Your task to perform on an android device: open chrome and create a bookmark for the current page Image 0: 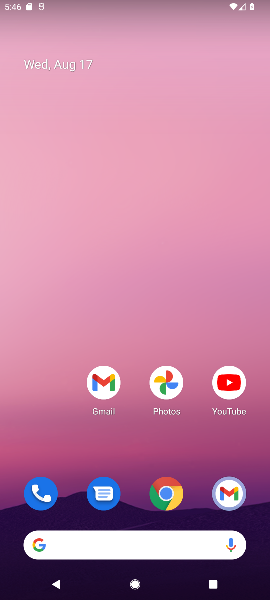
Step 0: press home button
Your task to perform on an android device: open chrome and create a bookmark for the current page Image 1: 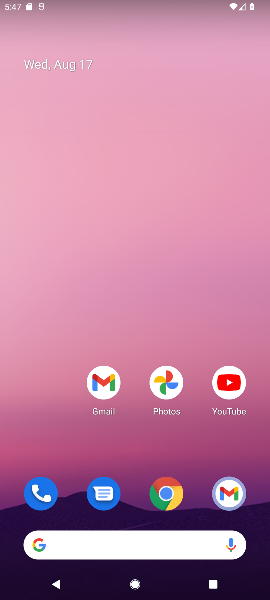
Step 1: click (165, 492)
Your task to perform on an android device: open chrome and create a bookmark for the current page Image 2: 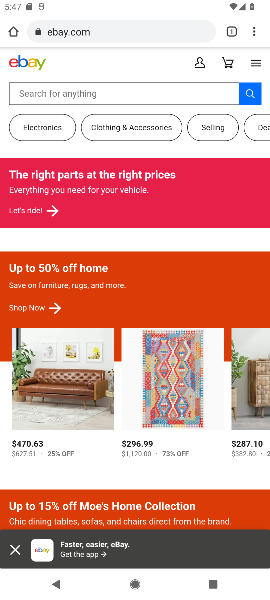
Step 2: task complete